Your task to perform on an android device: Search for "asus rog" on costco.com, select the first entry, add it to the cart, then select checkout. Image 0: 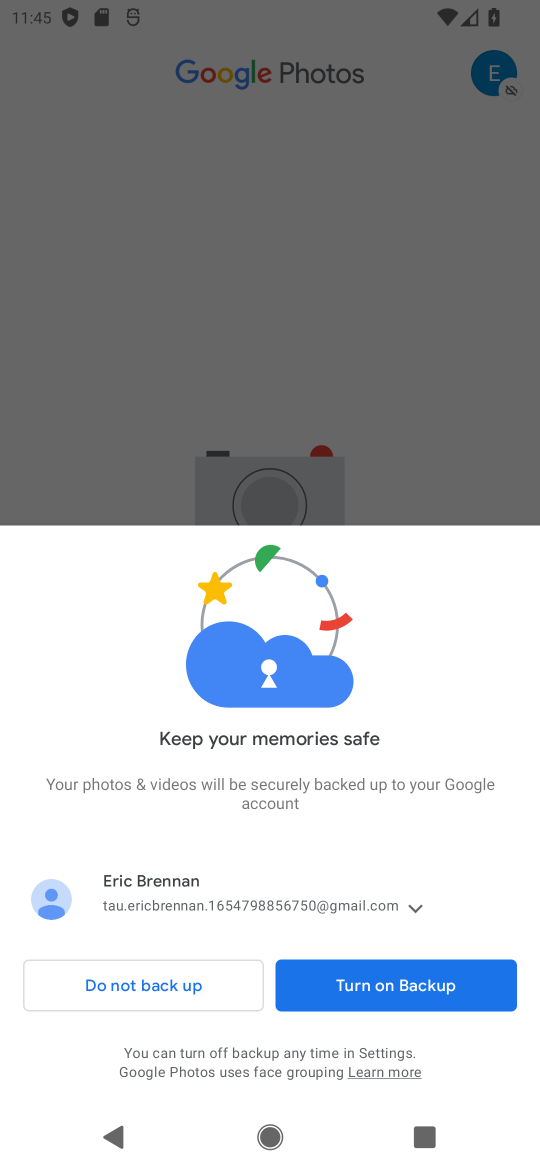
Step 0: press home button
Your task to perform on an android device: Search for "asus rog" on costco.com, select the first entry, add it to the cart, then select checkout. Image 1: 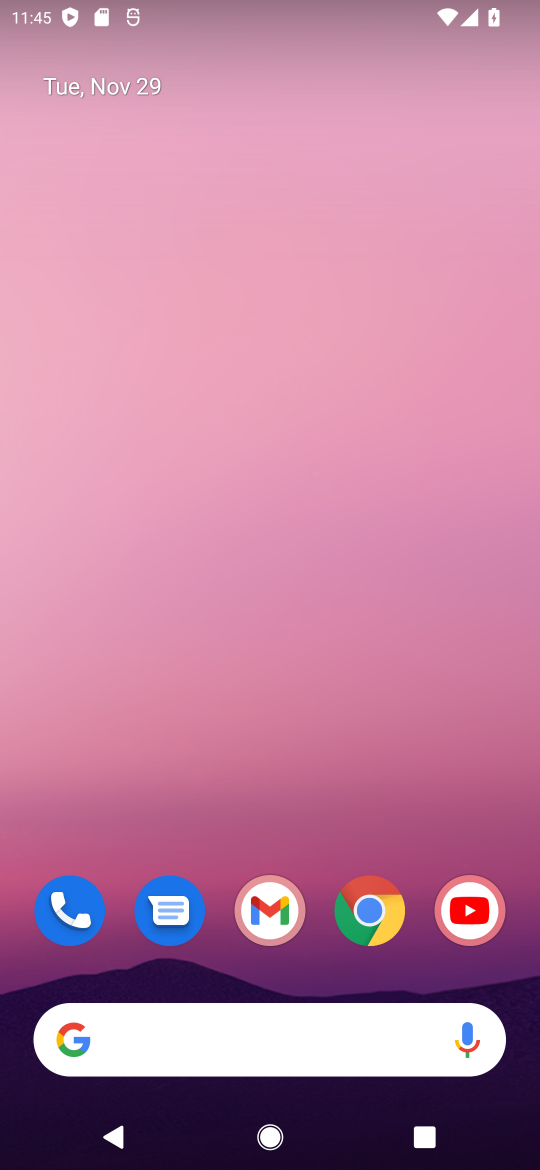
Step 1: click (371, 905)
Your task to perform on an android device: Search for "asus rog" on costco.com, select the first entry, add it to the cart, then select checkout. Image 2: 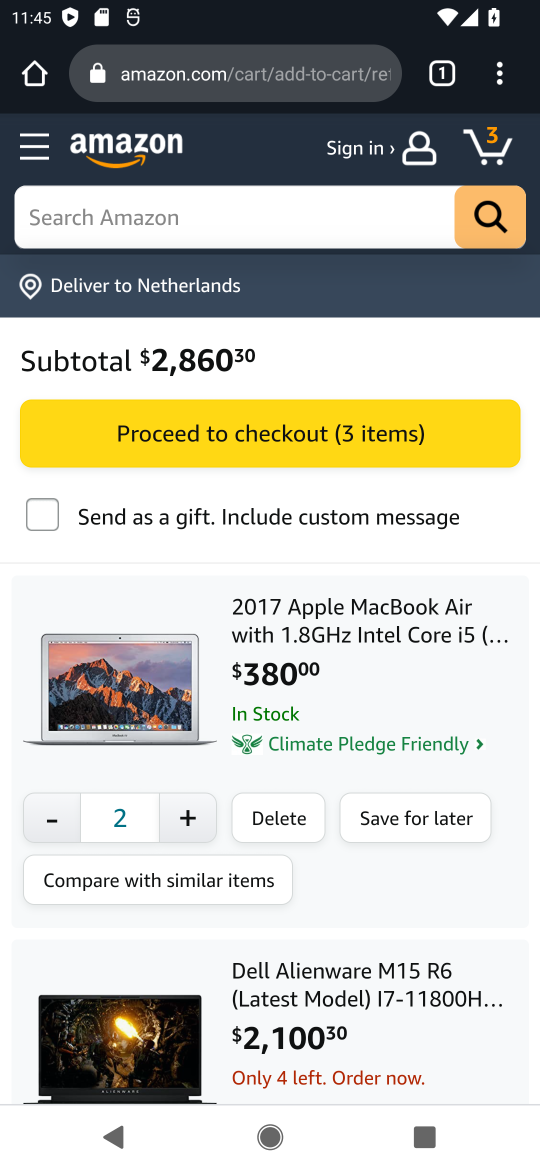
Step 2: click (203, 72)
Your task to perform on an android device: Search for "asus rog" on costco.com, select the first entry, add it to the cart, then select checkout. Image 3: 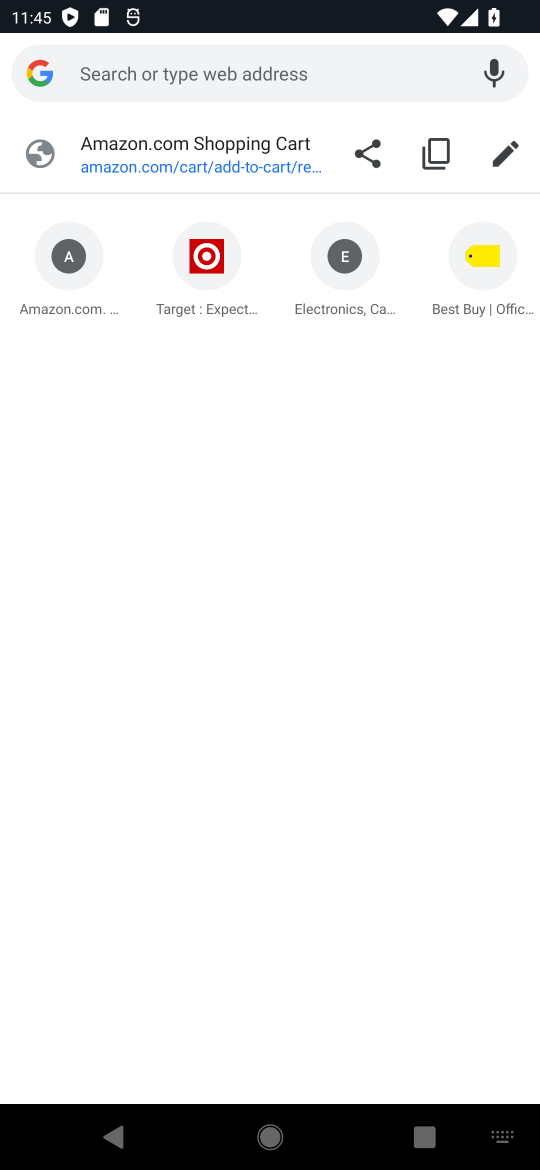
Step 3: type "costco.com"
Your task to perform on an android device: Search for "asus rog" on costco.com, select the first entry, add it to the cart, then select checkout. Image 4: 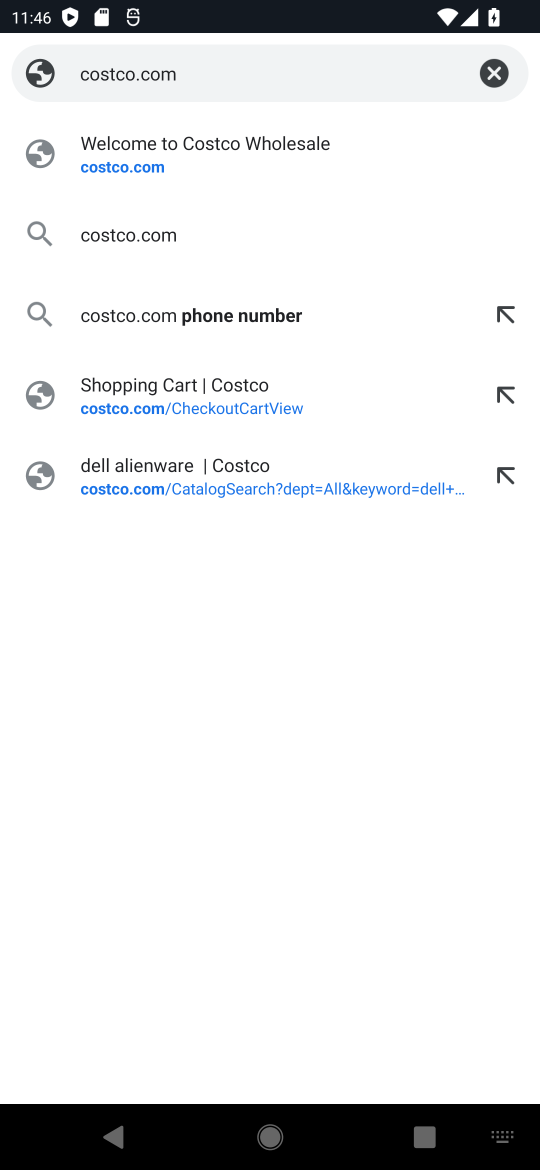
Step 4: click (117, 172)
Your task to perform on an android device: Search for "asus rog" on costco.com, select the first entry, add it to the cart, then select checkout. Image 5: 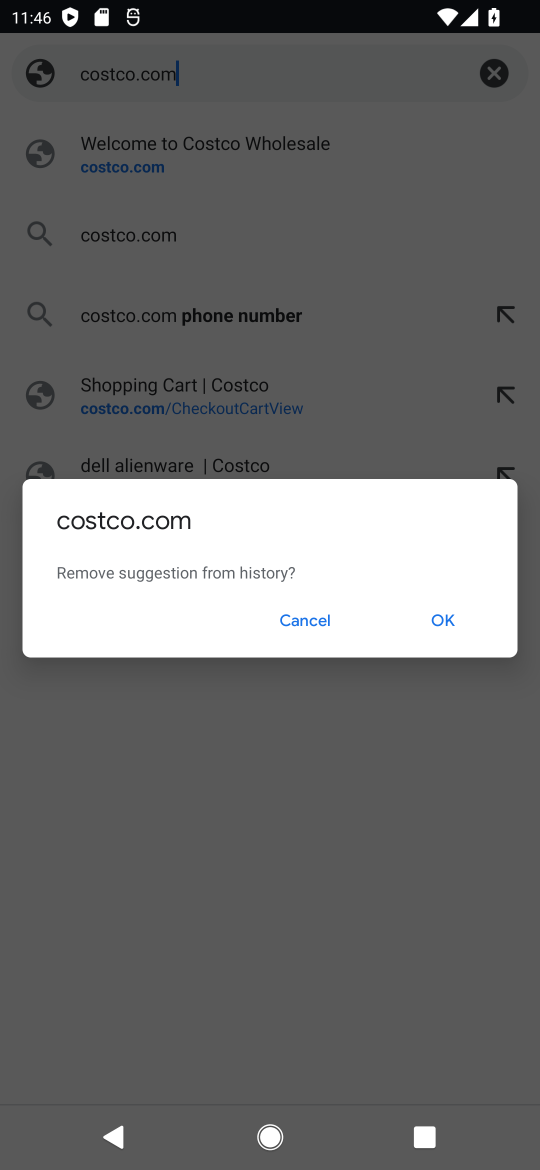
Step 5: click (294, 623)
Your task to perform on an android device: Search for "asus rog" on costco.com, select the first entry, add it to the cart, then select checkout. Image 6: 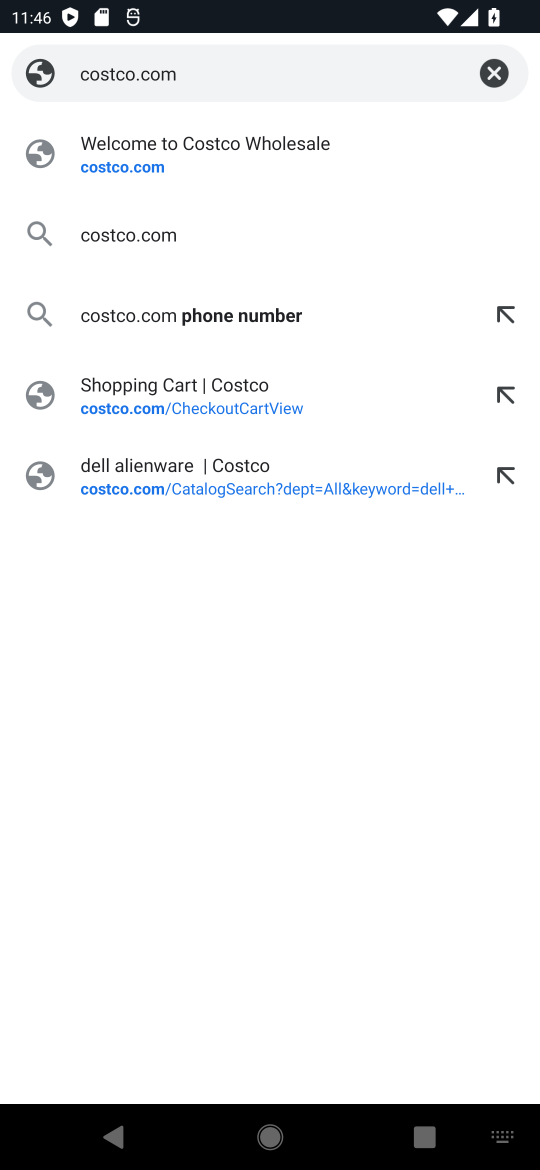
Step 6: click (121, 176)
Your task to perform on an android device: Search for "asus rog" on costco.com, select the first entry, add it to the cart, then select checkout. Image 7: 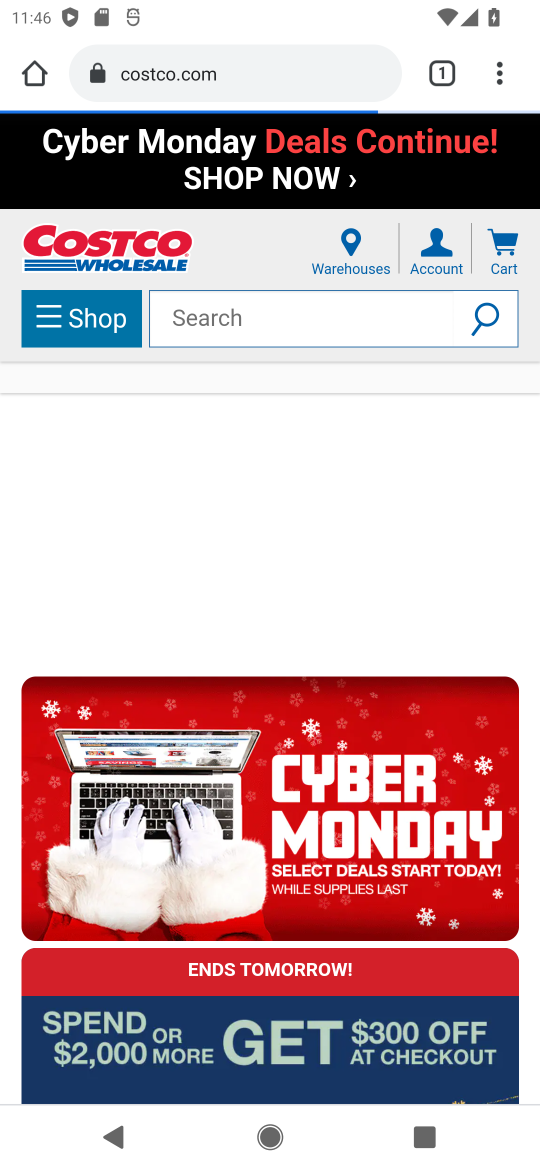
Step 7: click (195, 324)
Your task to perform on an android device: Search for "asus rog" on costco.com, select the first entry, add it to the cart, then select checkout. Image 8: 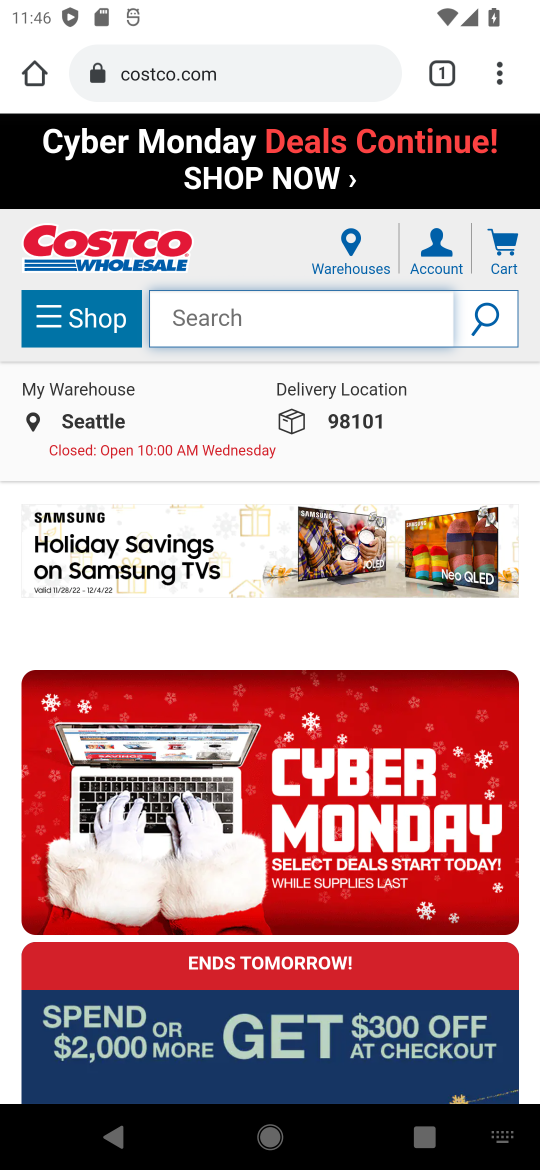
Step 8: type "asus rog"
Your task to perform on an android device: Search for "asus rog" on costco.com, select the first entry, add it to the cart, then select checkout. Image 9: 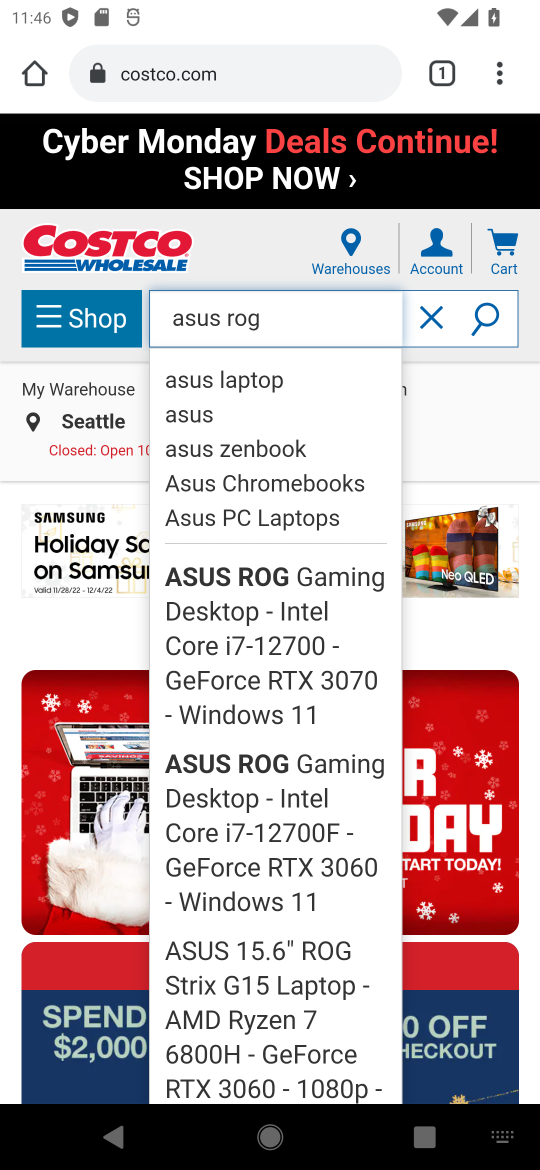
Step 9: click (496, 322)
Your task to perform on an android device: Search for "asus rog" on costco.com, select the first entry, add it to the cart, then select checkout. Image 10: 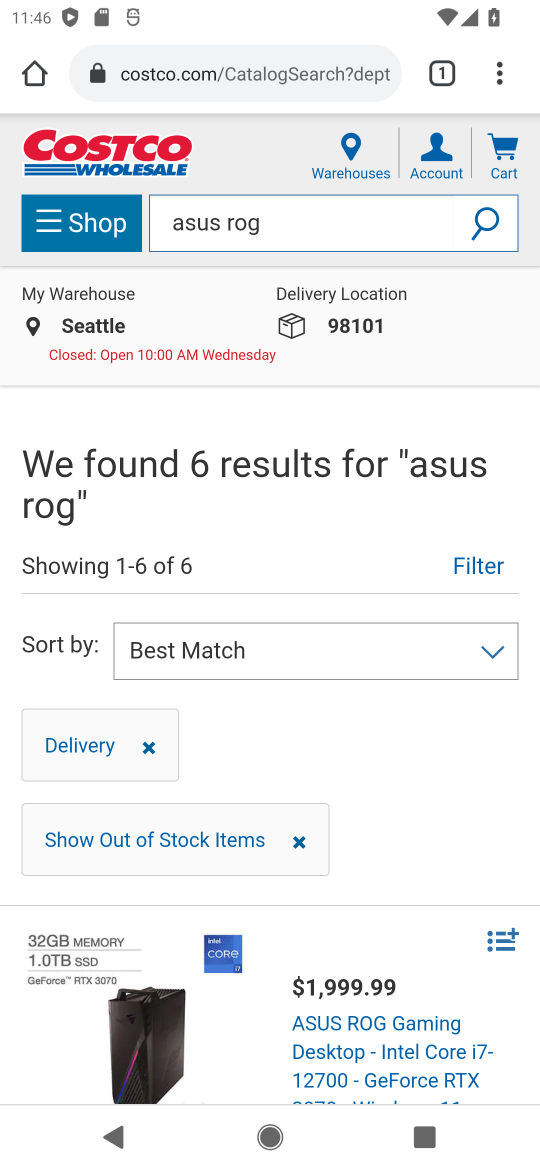
Step 10: drag from (260, 572) to (267, 295)
Your task to perform on an android device: Search for "asus rog" on costco.com, select the first entry, add it to the cart, then select checkout. Image 11: 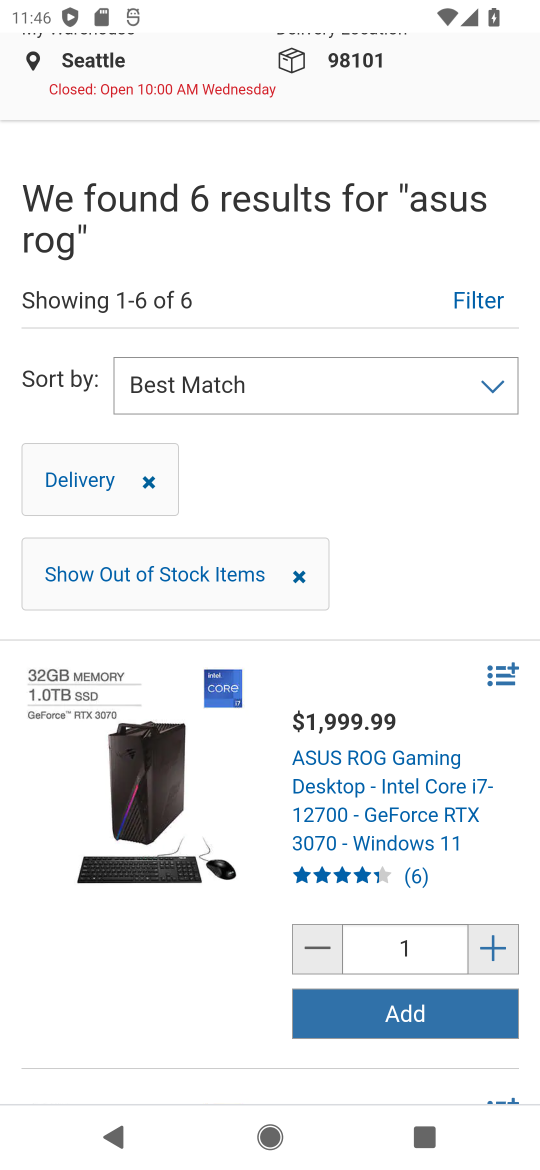
Step 11: click (397, 1026)
Your task to perform on an android device: Search for "asus rog" on costco.com, select the first entry, add it to the cart, then select checkout. Image 12: 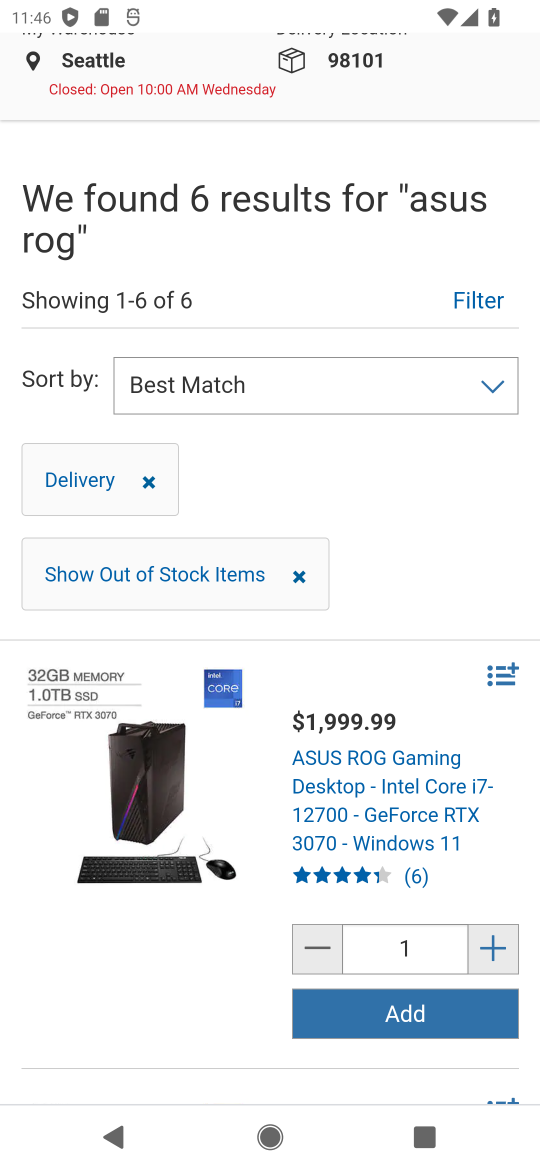
Step 12: drag from (381, 266) to (437, 735)
Your task to perform on an android device: Search for "asus rog" on costco.com, select the first entry, add it to the cart, then select checkout. Image 13: 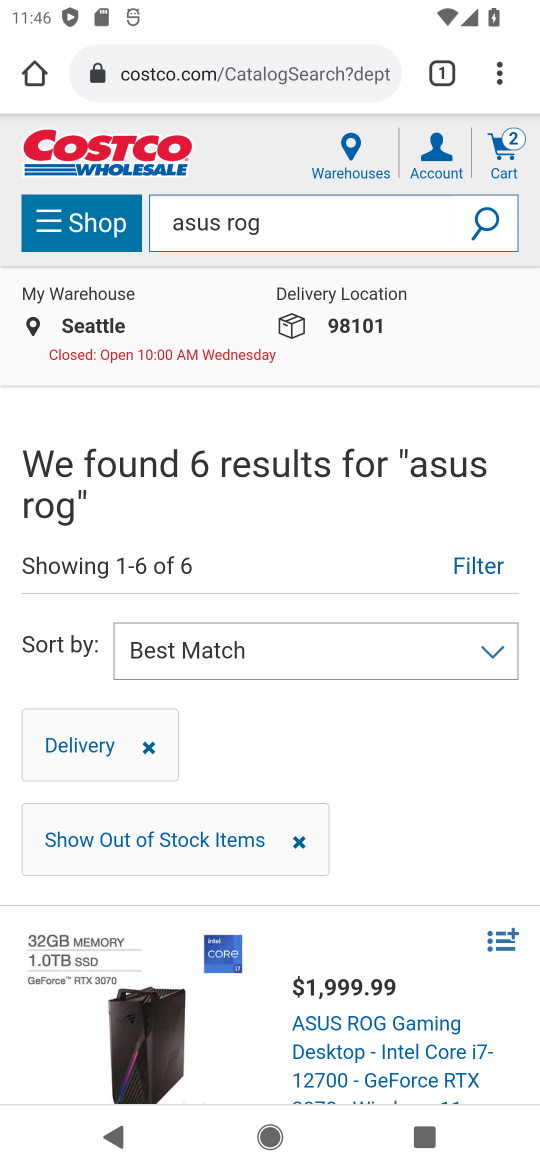
Step 13: click (500, 151)
Your task to perform on an android device: Search for "asus rog" on costco.com, select the first entry, add it to the cart, then select checkout. Image 14: 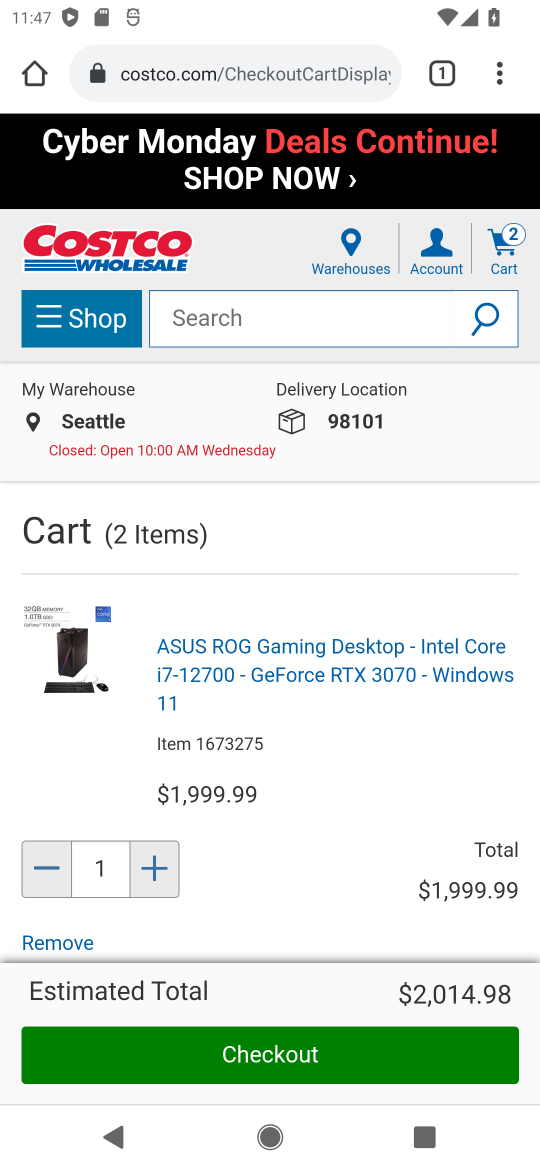
Step 14: click (300, 1062)
Your task to perform on an android device: Search for "asus rog" on costco.com, select the first entry, add it to the cart, then select checkout. Image 15: 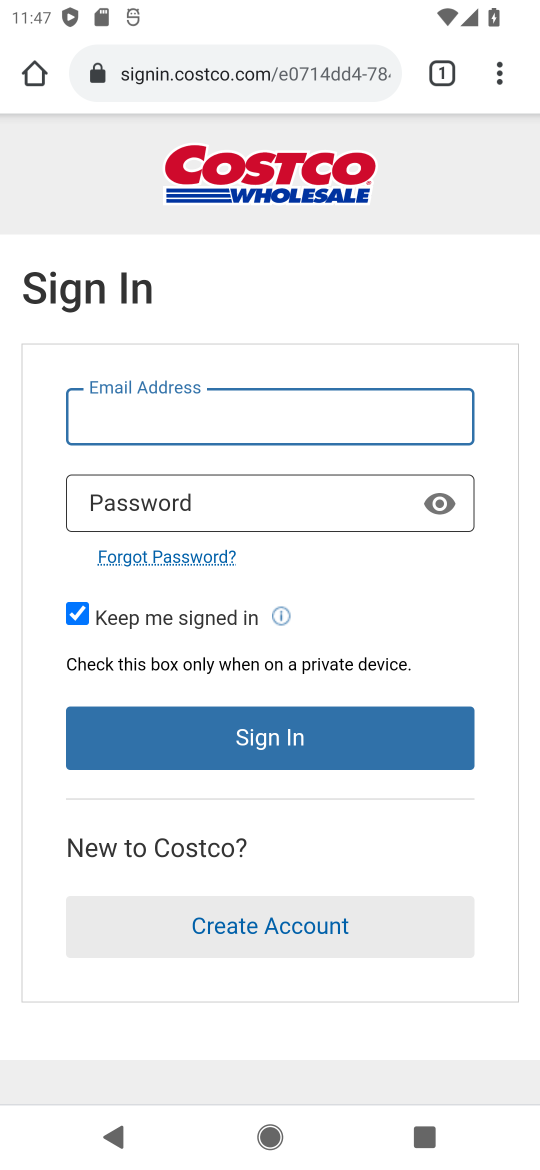
Step 15: task complete